Your task to perform on an android device: toggle priority inbox in the gmail app Image 0: 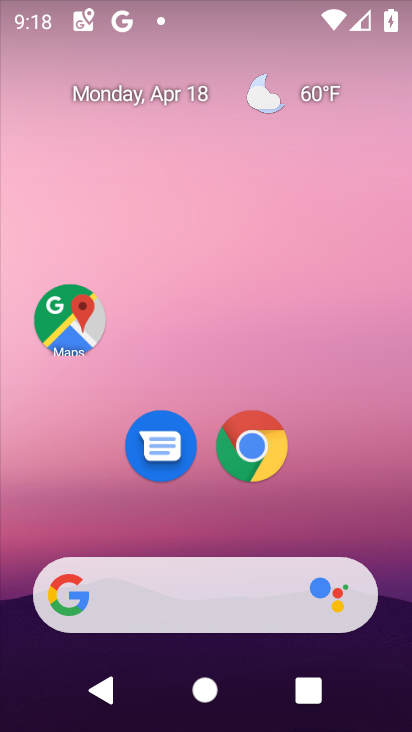
Step 0: drag from (388, 543) to (393, 92)
Your task to perform on an android device: toggle priority inbox in the gmail app Image 1: 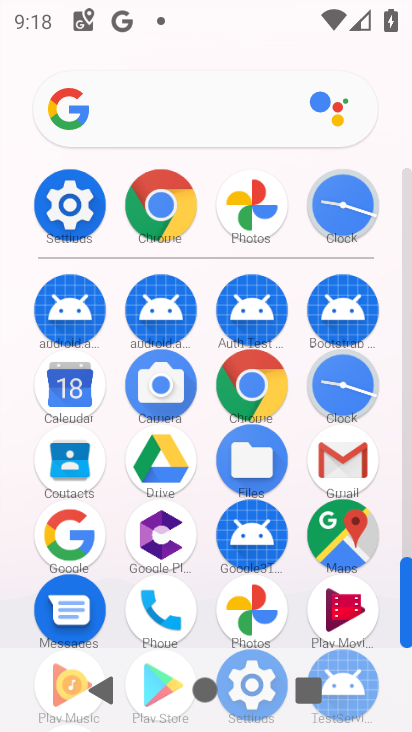
Step 1: click (341, 463)
Your task to perform on an android device: toggle priority inbox in the gmail app Image 2: 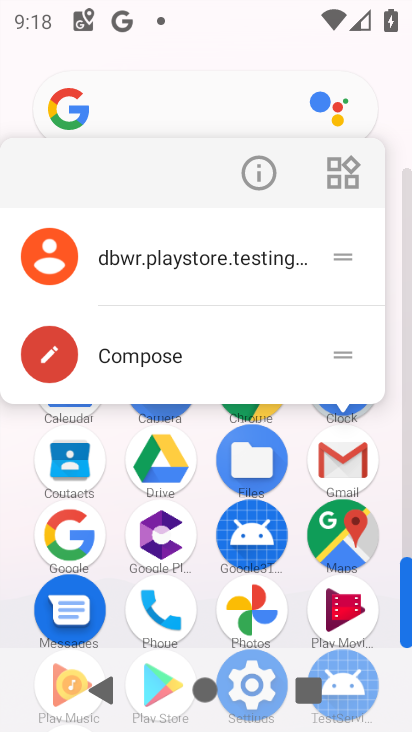
Step 2: click (341, 463)
Your task to perform on an android device: toggle priority inbox in the gmail app Image 3: 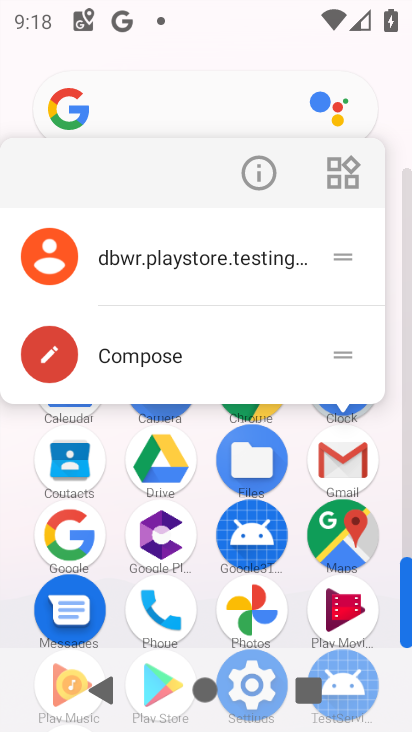
Step 3: click (341, 463)
Your task to perform on an android device: toggle priority inbox in the gmail app Image 4: 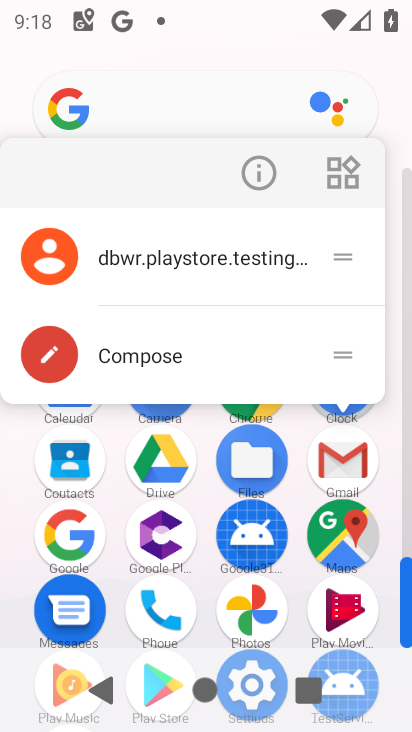
Step 4: click (341, 463)
Your task to perform on an android device: toggle priority inbox in the gmail app Image 5: 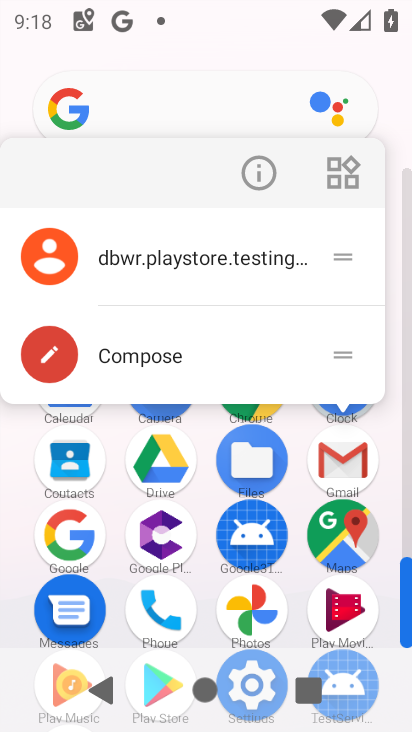
Step 5: click (341, 463)
Your task to perform on an android device: toggle priority inbox in the gmail app Image 6: 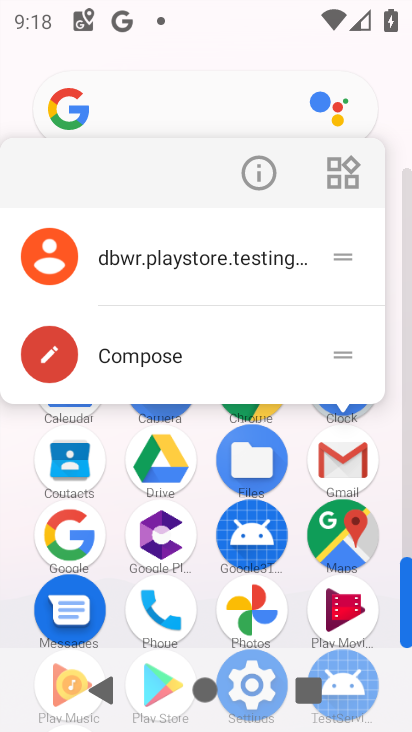
Step 6: click (342, 463)
Your task to perform on an android device: toggle priority inbox in the gmail app Image 7: 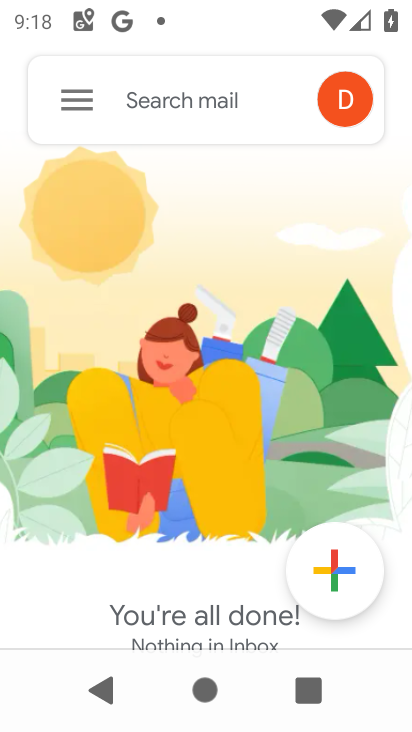
Step 7: click (70, 93)
Your task to perform on an android device: toggle priority inbox in the gmail app Image 8: 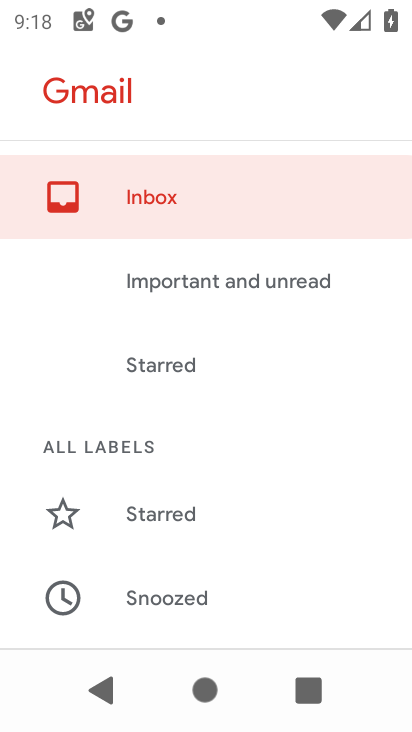
Step 8: drag from (331, 533) to (331, 356)
Your task to perform on an android device: toggle priority inbox in the gmail app Image 9: 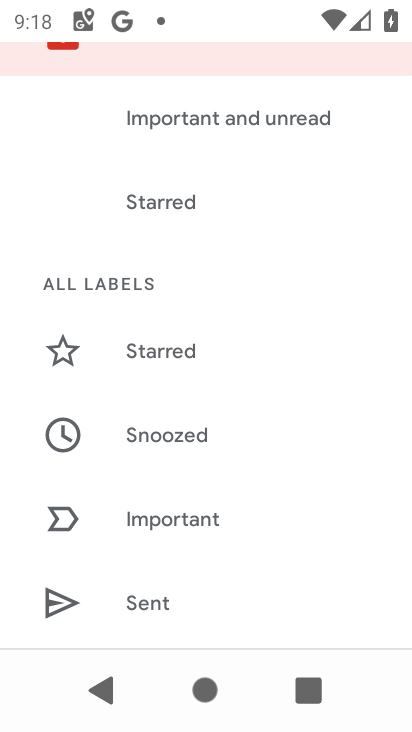
Step 9: drag from (345, 558) to (338, 321)
Your task to perform on an android device: toggle priority inbox in the gmail app Image 10: 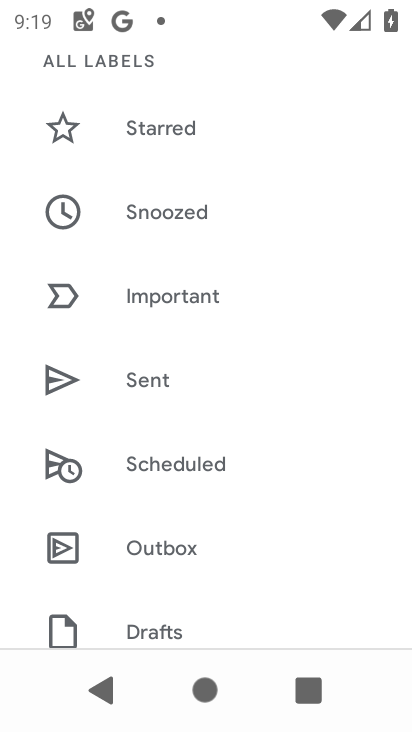
Step 10: drag from (328, 541) to (321, 325)
Your task to perform on an android device: toggle priority inbox in the gmail app Image 11: 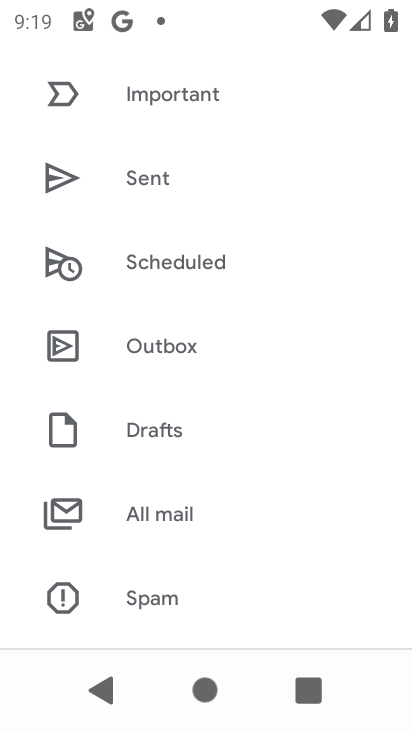
Step 11: drag from (339, 583) to (337, 335)
Your task to perform on an android device: toggle priority inbox in the gmail app Image 12: 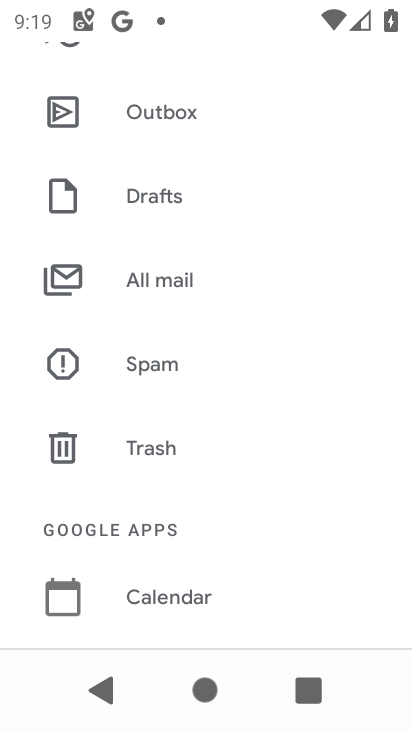
Step 12: drag from (342, 572) to (323, 276)
Your task to perform on an android device: toggle priority inbox in the gmail app Image 13: 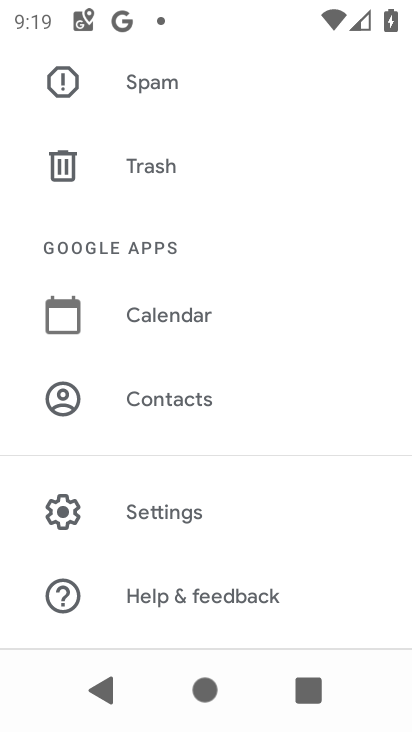
Step 13: click (190, 515)
Your task to perform on an android device: toggle priority inbox in the gmail app Image 14: 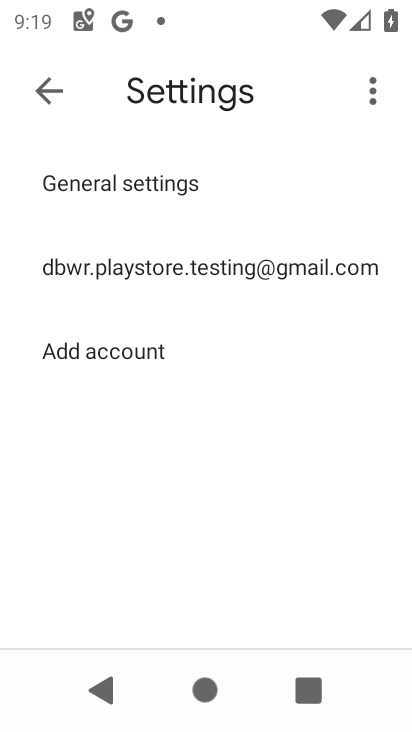
Step 14: click (211, 257)
Your task to perform on an android device: toggle priority inbox in the gmail app Image 15: 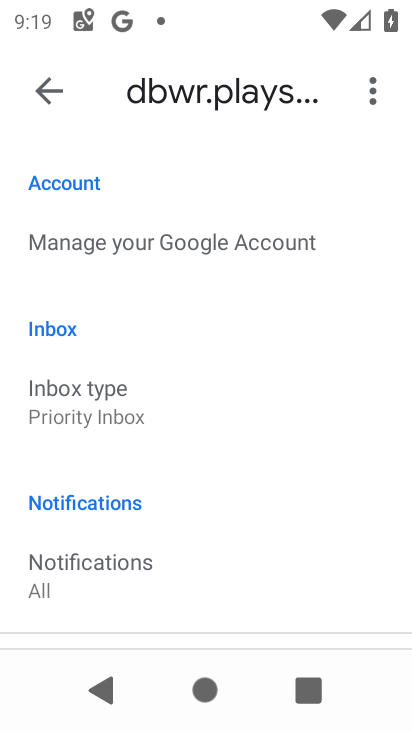
Step 15: click (98, 417)
Your task to perform on an android device: toggle priority inbox in the gmail app Image 16: 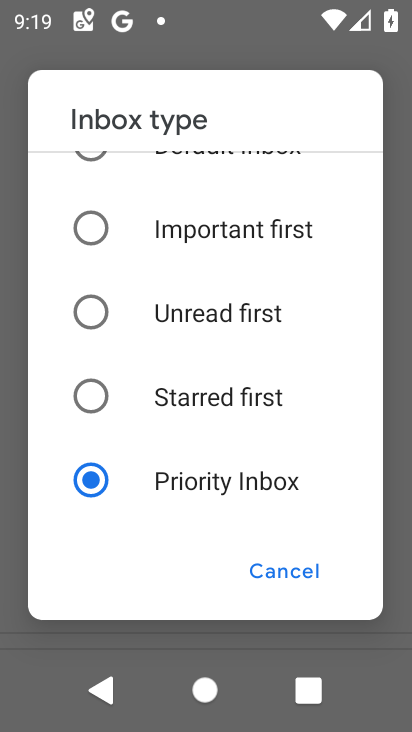
Step 16: task complete